Your task to perform on an android device: What's the weather today? Image 0: 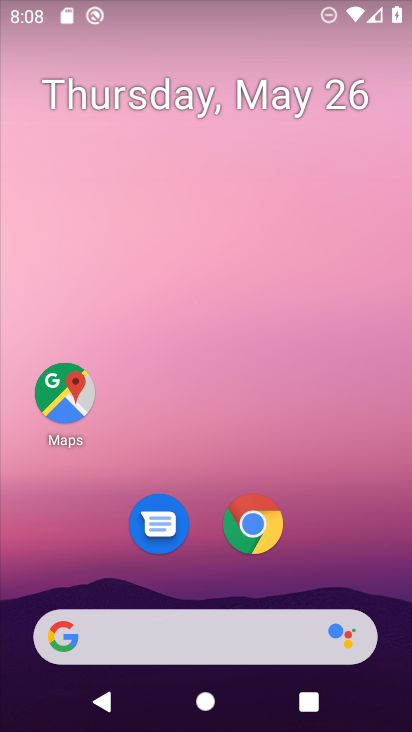
Step 0: click (254, 636)
Your task to perform on an android device: What's the weather today? Image 1: 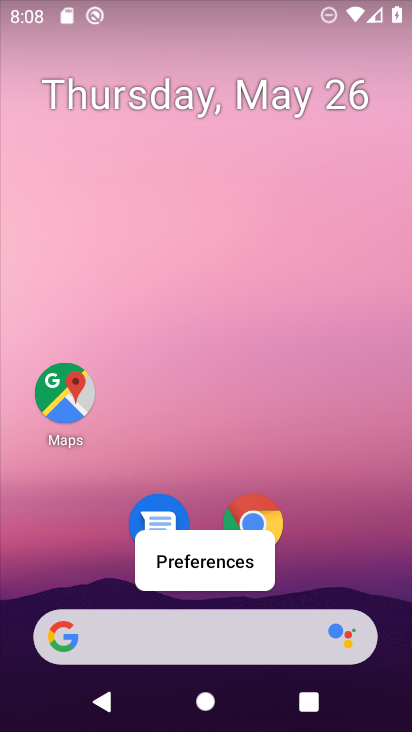
Step 1: click (147, 630)
Your task to perform on an android device: What's the weather today? Image 2: 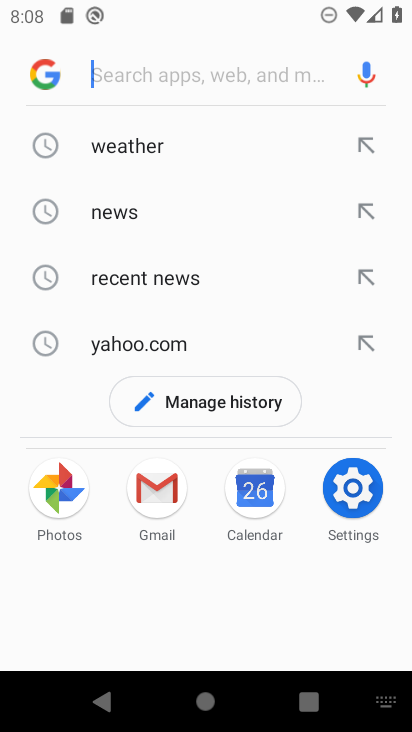
Step 2: click (123, 148)
Your task to perform on an android device: What's the weather today? Image 3: 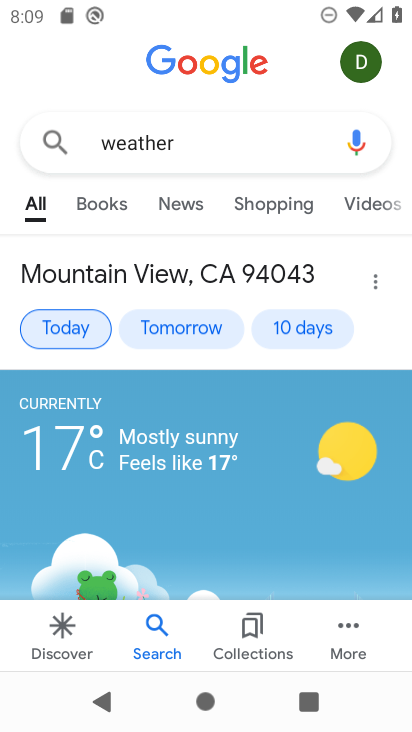
Step 3: click (83, 319)
Your task to perform on an android device: What's the weather today? Image 4: 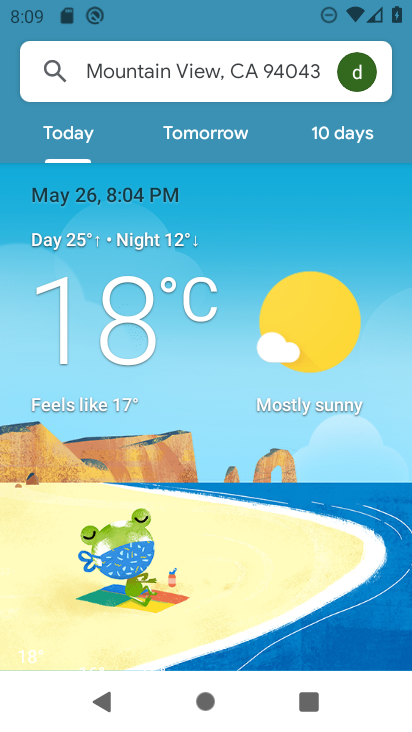
Step 4: task complete